Your task to perform on an android device: toggle notifications settings in the gmail app Image 0: 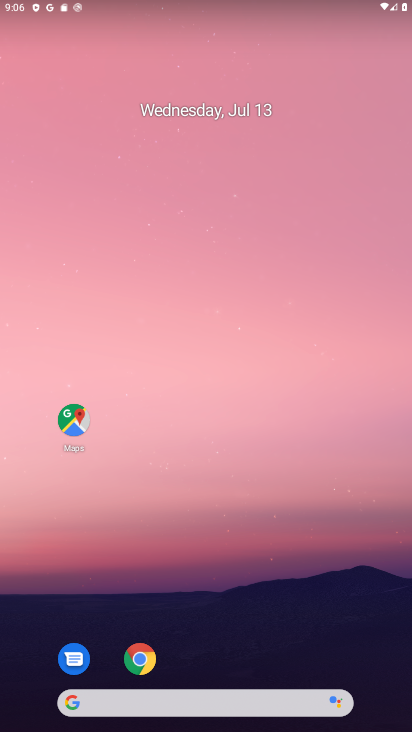
Step 0: drag from (191, 683) to (216, 134)
Your task to perform on an android device: toggle notifications settings in the gmail app Image 1: 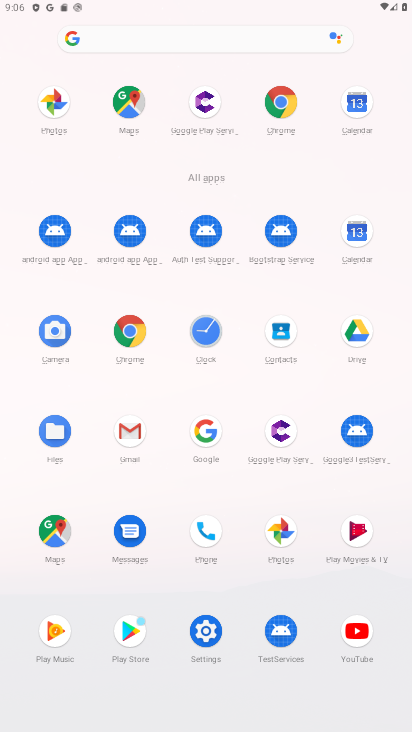
Step 1: click (122, 430)
Your task to perform on an android device: toggle notifications settings in the gmail app Image 2: 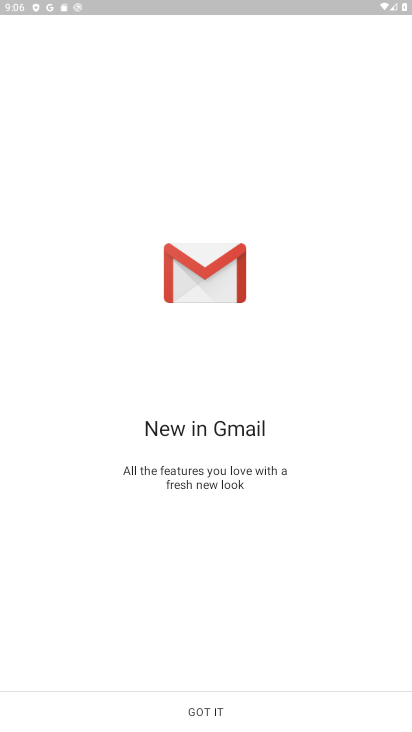
Step 2: click (212, 701)
Your task to perform on an android device: toggle notifications settings in the gmail app Image 3: 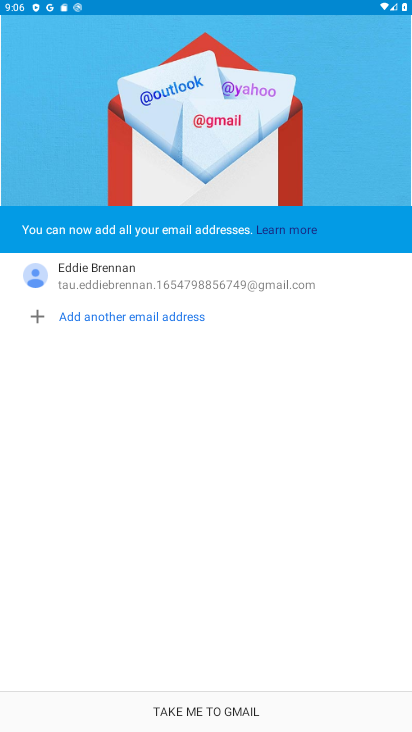
Step 3: click (212, 701)
Your task to perform on an android device: toggle notifications settings in the gmail app Image 4: 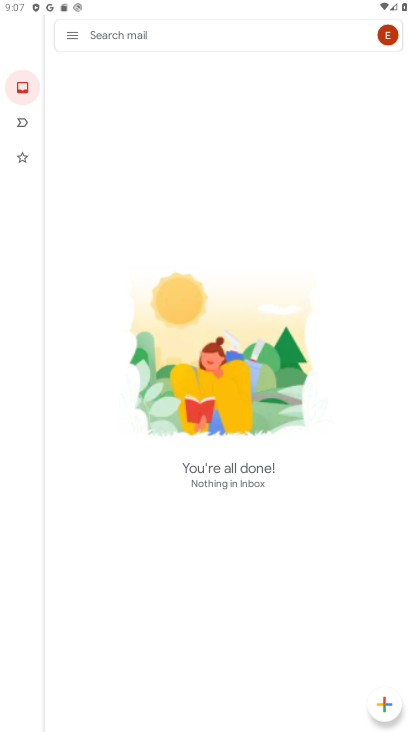
Step 4: click (68, 23)
Your task to perform on an android device: toggle notifications settings in the gmail app Image 5: 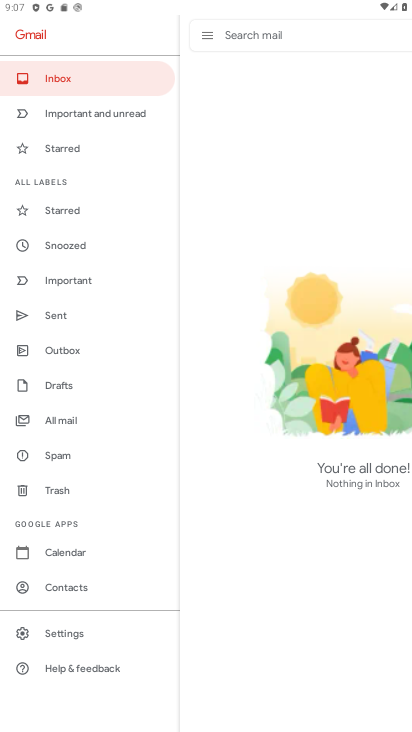
Step 5: click (72, 637)
Your task to perform on an android device: toggle notifications settings in the gmail app Image 6: 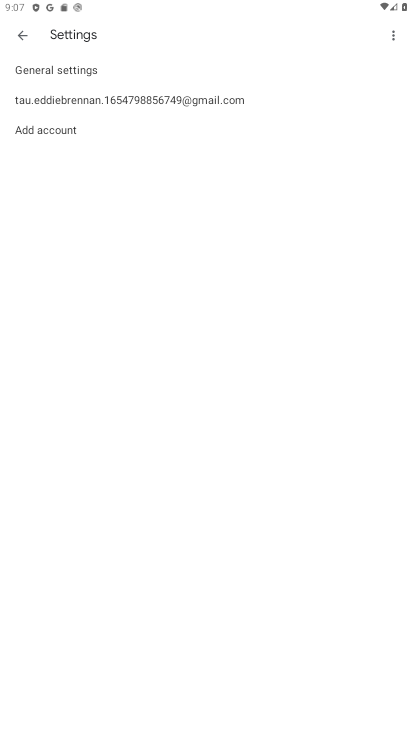
Step 6: click (80, 66)
Your task to perform on an android device: toggle notifications settings in the gmail app Image 7: 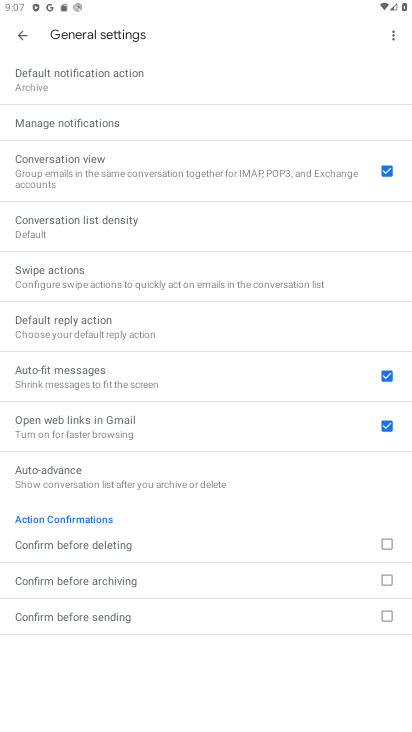
Step 7: drag from (120, 285) to (116, 370)
Your task to perform on an android device: toggle notifications settings in the gmail app Image 8: 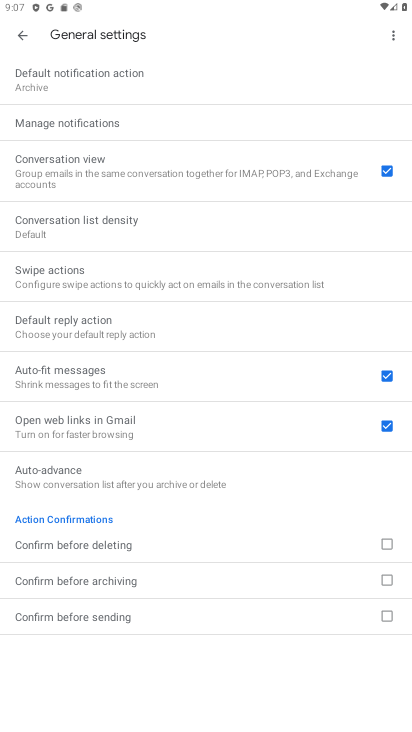
Step 8: click (12, 25)
Your task to perform on an android device: toggle notifications settings in the gmail app Image 9: 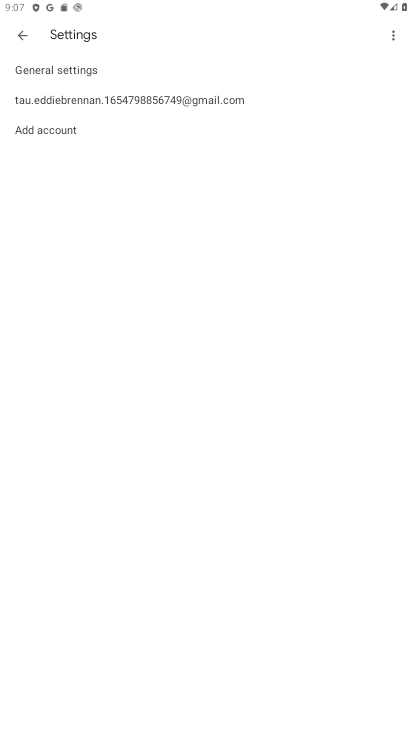
Step 9: click (68, 70)
Your task to perform on an android device: toggle notifications settings in the gmail app Image 10: 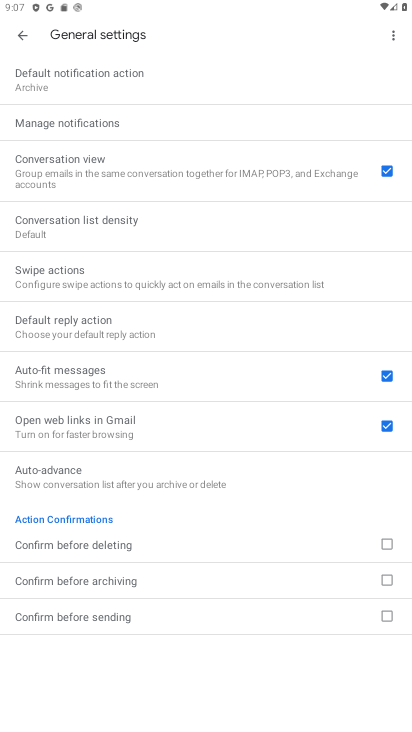
Step 10: click (20, 28)
Your task to perform on an android device: toggle notifications settings in the gmail app Image 11: 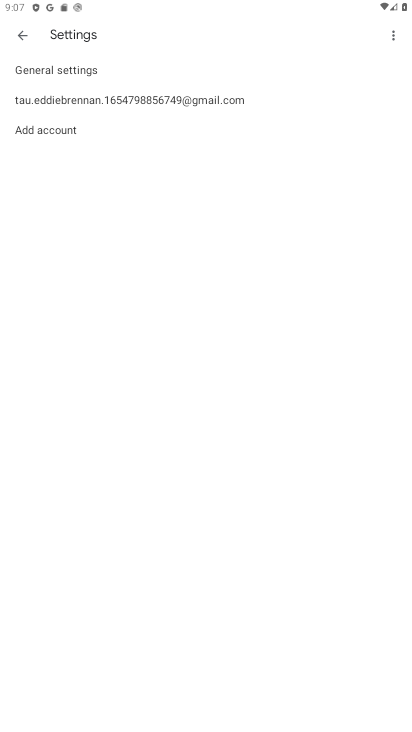
Step 11: click (55, 95)
Your task to perform on an android device: toggle notifications settings in the gmail app Image 12: 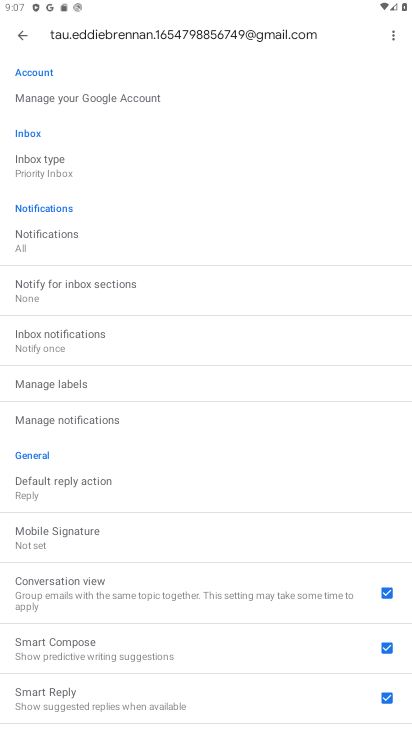
Step 12: click (60, 236)
Your task to perform on an android device: toggle notifications settings in the gmail app Image 13: 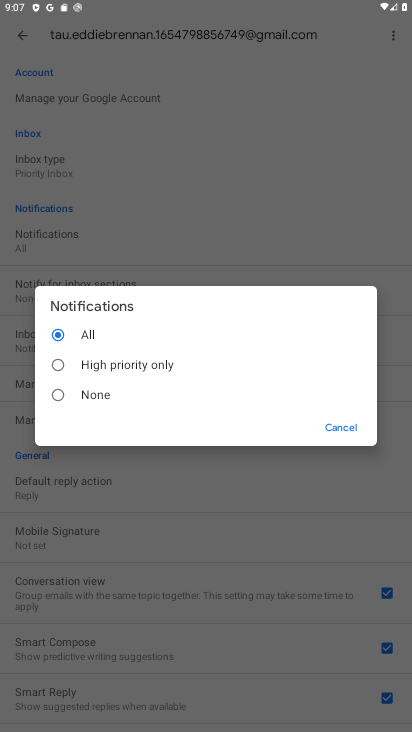
Step 13: click (86, 383)
Your task to perform on an android device: toggle notifications settings in the gmail app Image 14: 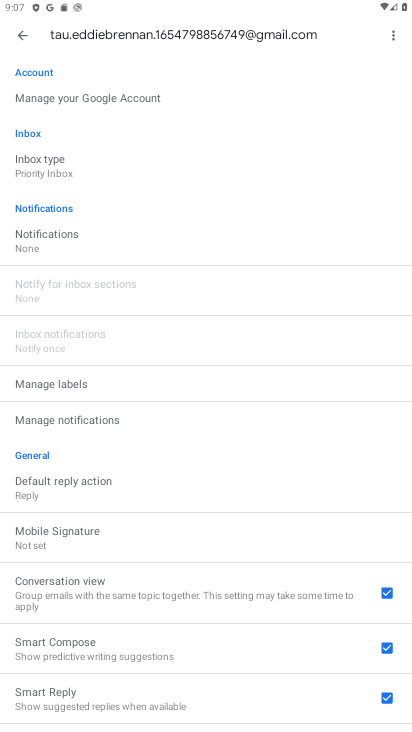
Step 14: task complete